Your task to perform on an android device: Go to calendar. Show me events next week Image 0: 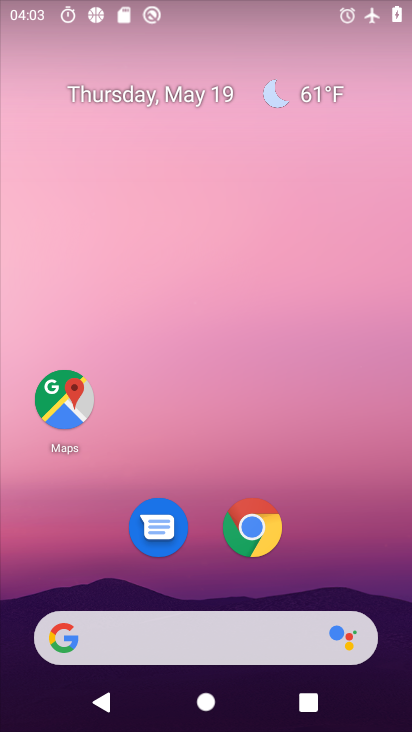
Step 0: drag from (144, 551) to (214, 137)
Your task to perform on an android device: Go to calendar. Show me events next week Image 1: 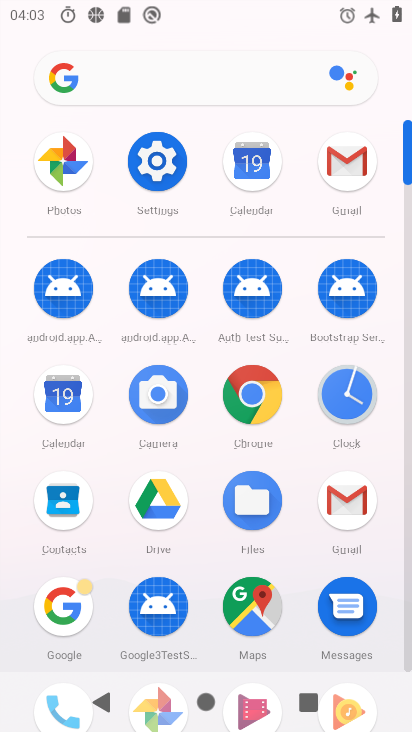
Step 1: click (50, 412)
Your task to perform on an android device: Go to calendar. Show me events next week Image 2: 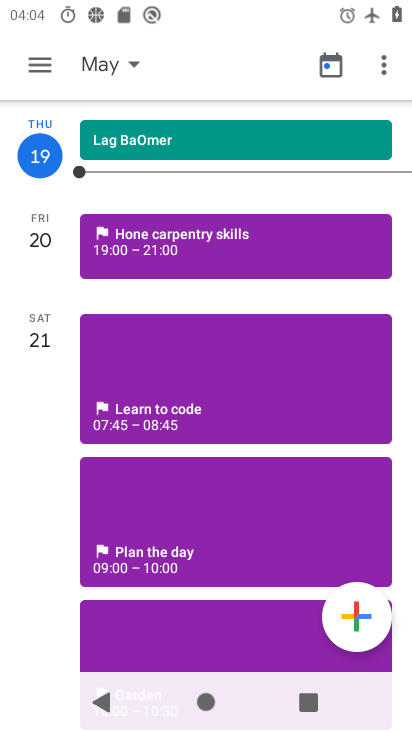
Step 2: drag from (196, 630) to (337, 71)
Your task to perform on an android device: Go to calendar. Show me events next week Image 3: 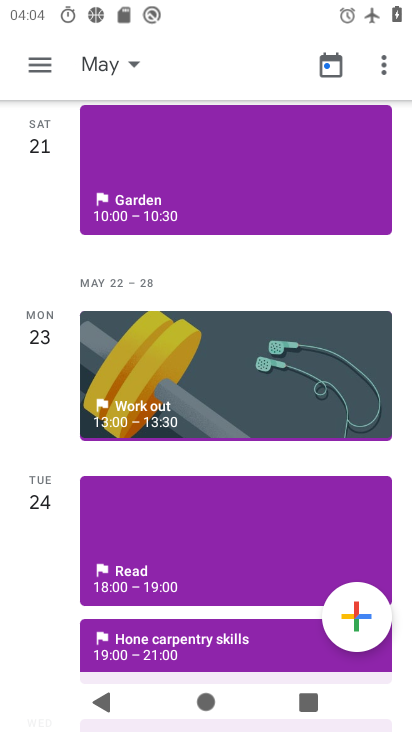
Step 3: click (160, 650)
Your task to perform on an android device: Go to calendar. Show me events next week Image 4: 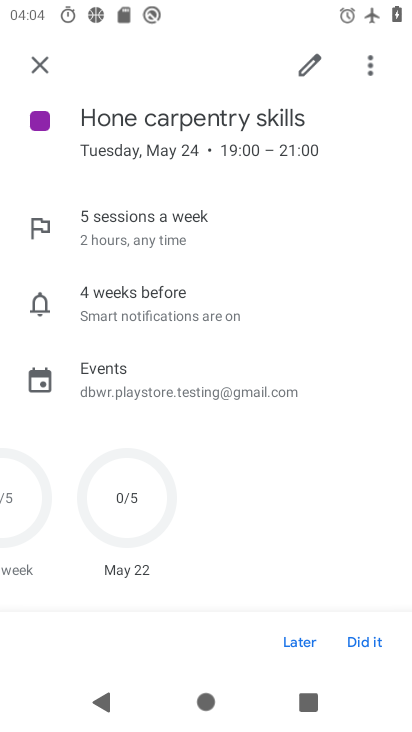
Step 4: task complete